Your task to perform on an android device: allow notifications from all sites in the chrome app Image 0: 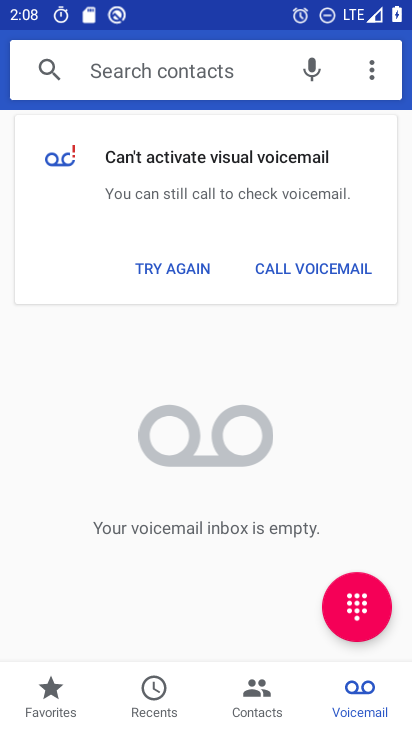
Step 0: press home button
Your task to perform on an android device: allow notifications from all sites in the chrome app Image 1: 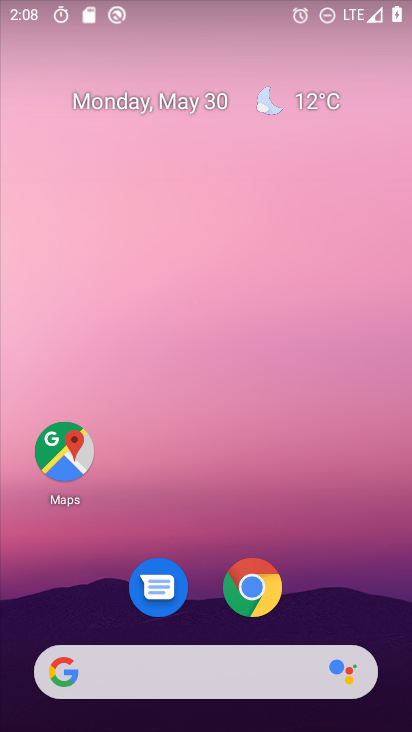
Step 1: click (252, 584)
Your task to perform on an android device: allow notifications from all sites in the chrome app Image 2: 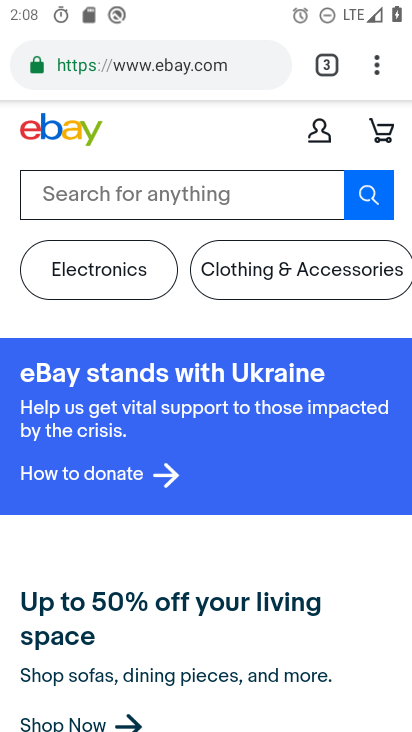
Step 2: click (372, 63)
Your task to perform on an android device: allow notifications from all sites in the chrome app Image 3: 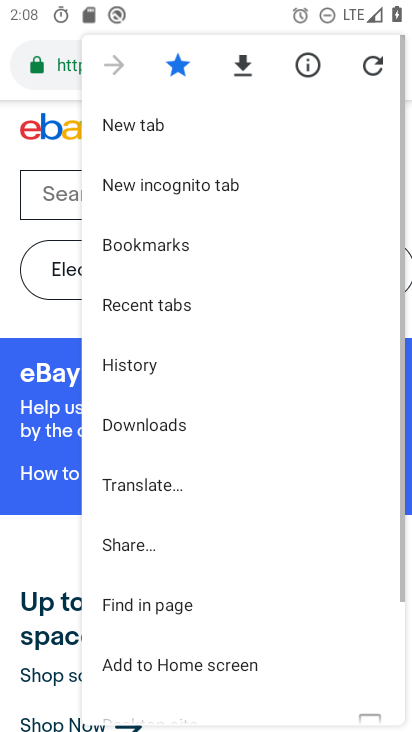
Step 3: drag from (184, 642) to (333, 209)
Your task to perform on an android device: allow notifications from all sites in the chrome app Image 4: 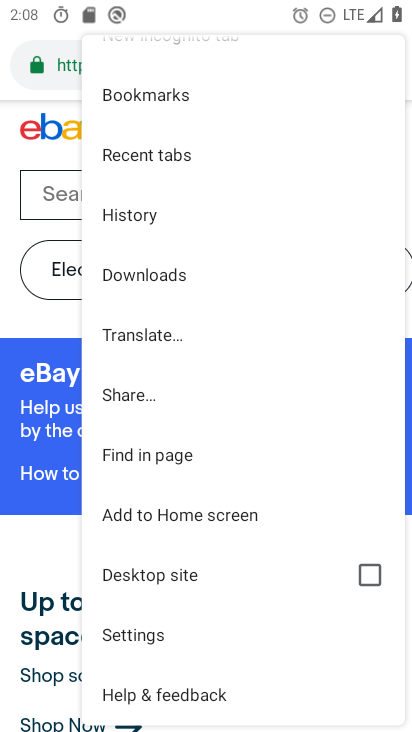
Step 4: click (138, 644)
Your task to perform on an android device: allow notifications from all sites in the chrome app Image 5: 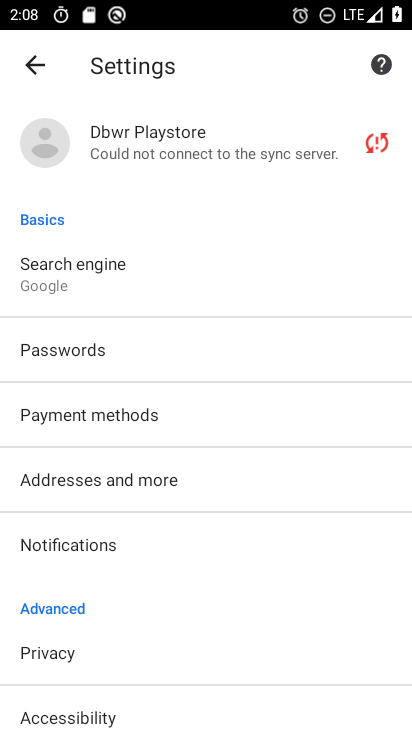
Step 5: click (114, 556)
Your task to perform on an android device: allow notifications from all sites in the chrome app Image 6: 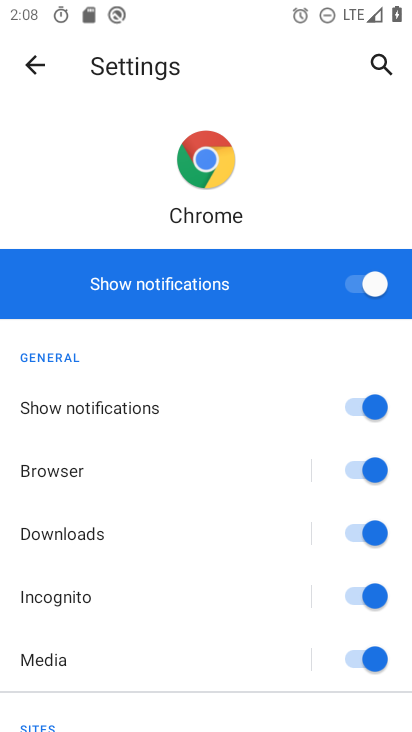
Step 6: task complete